Your task to perform on an android device: Turn on the flashlight Image 0: 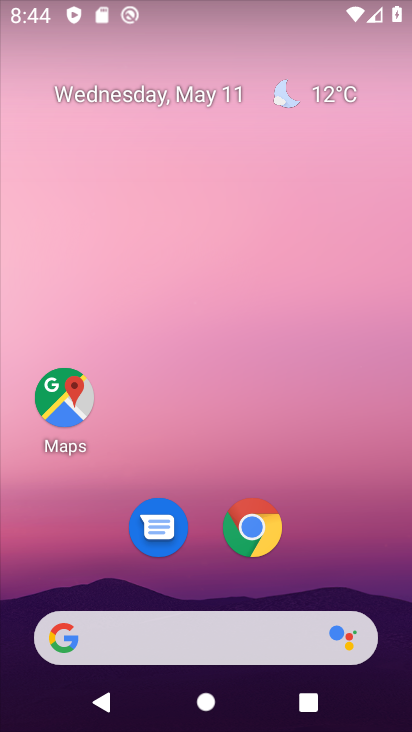
Step 0: drag from (301, 14) to (305, 590)
Your task to perform on an android device: Turn on the flashlight Image 1: 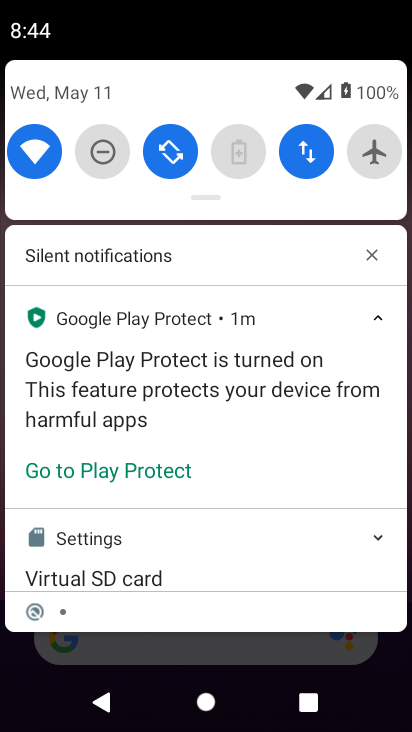
Step 1: task complete